Your task to perform on an android device: check data usage Image 0: 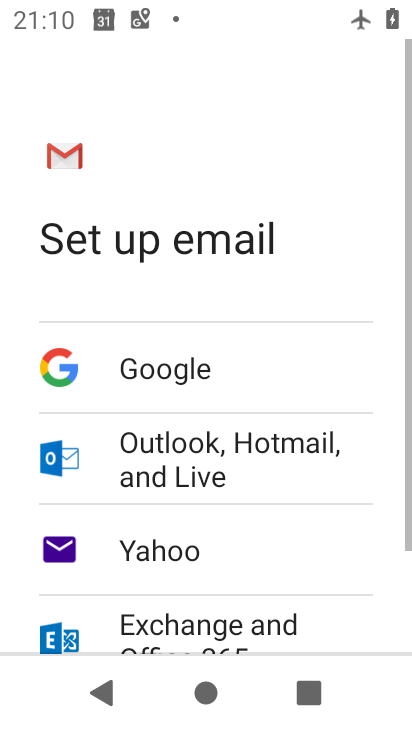
Step 0: press home button
Your task to perform on an android device: check data usage Image 1: 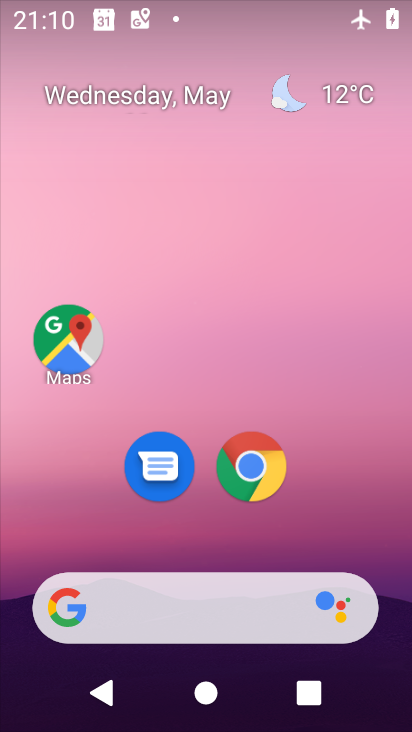
Step 1: drag from (201, 541) to (193, 55)
Your task to perform on an android device: check data usage Image 2: 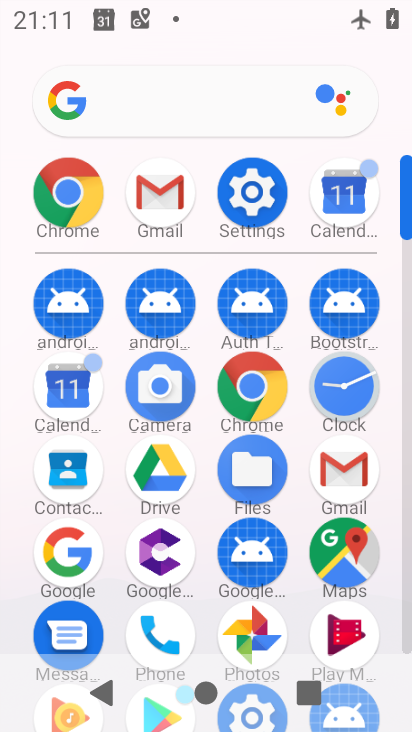
Step 2: click (252, 191)
Your task to perform on an android device: check data usage Image 3: 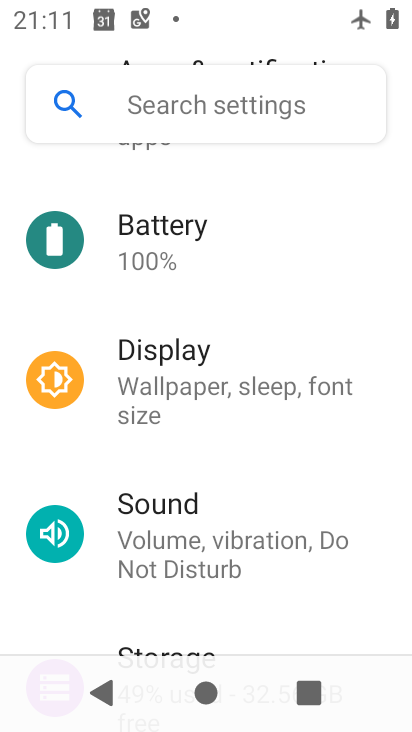
Step 3: drag from (214, 226) to (214, 683)
Your task to perform on an android device: check data usage Image 4: 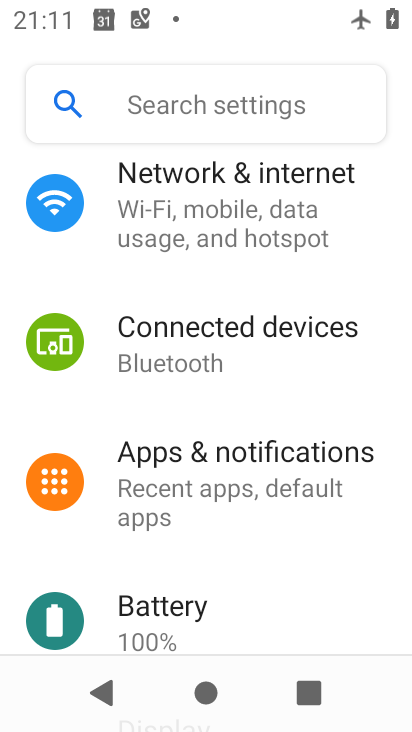
Step 4: click (220, 203)
Your task to perform on an android device: check data usage Image 5: 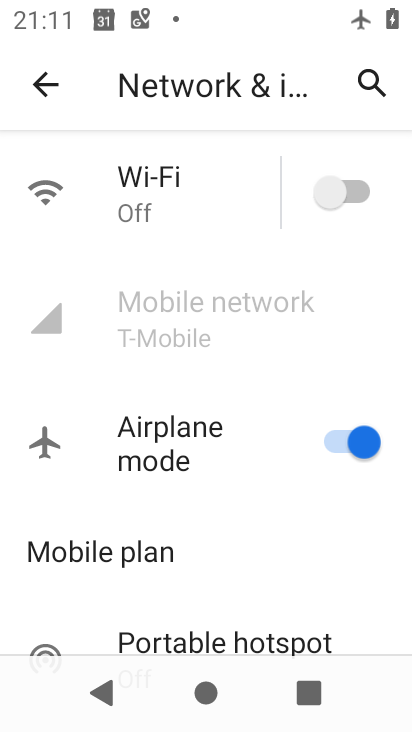
Step 5: task complete